Your task to perform on an android device: Go to wifi settings Image 0: 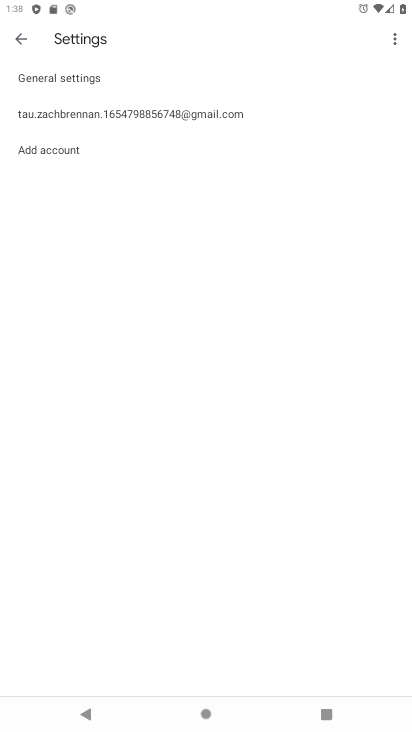
Step 0: press home button
Your task to perform on an android device: Go to wifi settings Image 1: 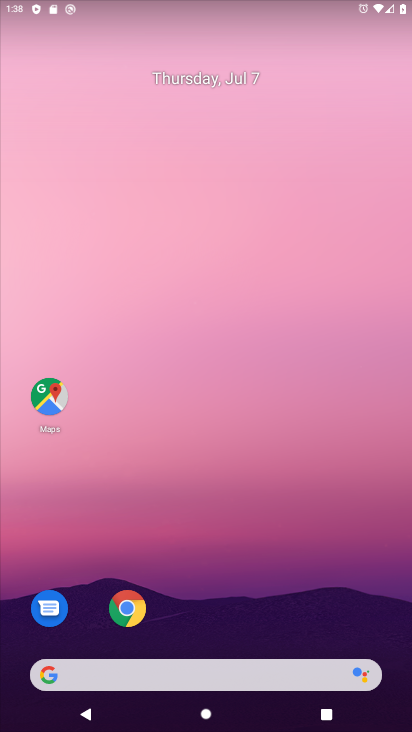
Step 1: drag from (252, 707) to (222, 82)
Your task to perform on an android device: Go to wifi settings Image 2: 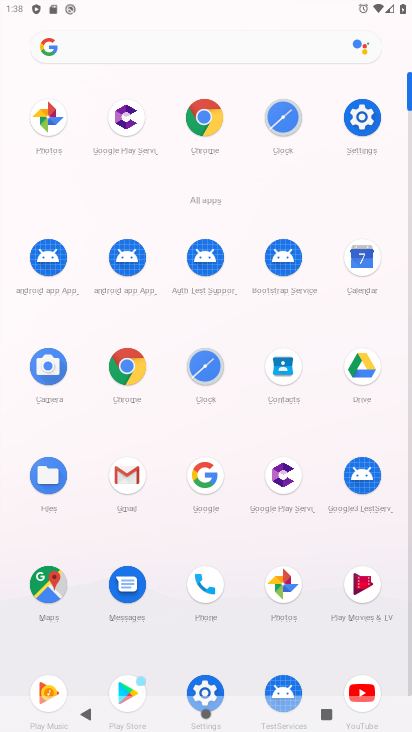
Step 2: click (366, 113)
Your task to perform on an android device: Go to wifi settings Image 3: 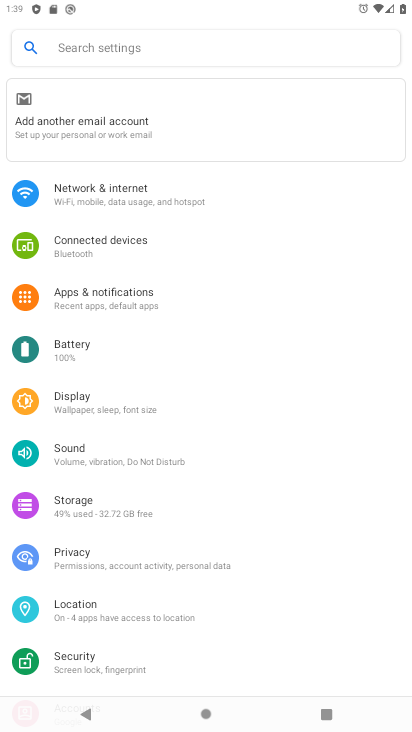
Step 3: click (95, 189)
Your task to perform on an android device: Go to wifi settings Image 4: 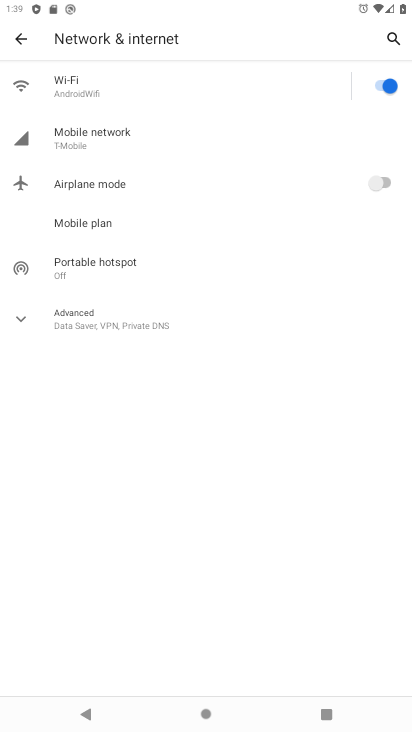
Step 4: click (70, 79)
Your task to perform on an android device: Go to wifi settings Image 5: 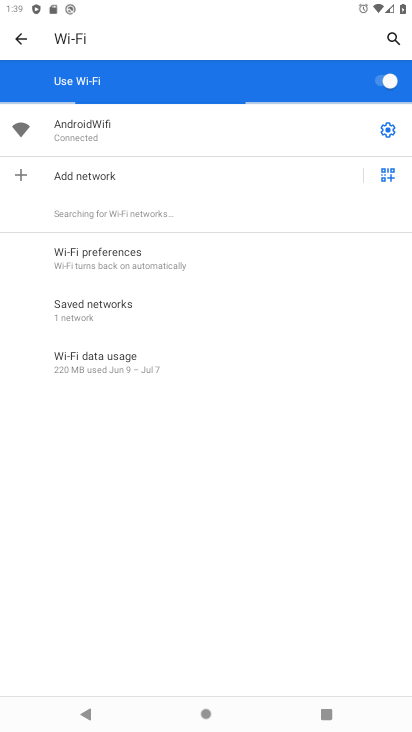
Step 5: task complete